Your task to perform on an android device: Open network settings Image 0: 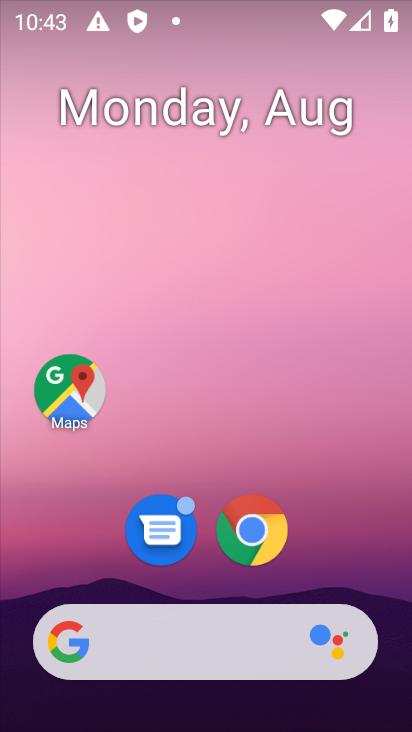
Step 0: drag from (252, 646) to (203, 227)
Your task to perform on an android device: Open network settings Image 1: 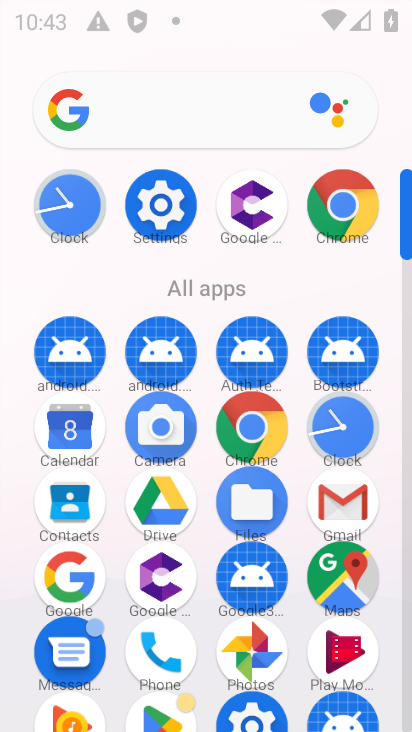
Step 1: drag from (266, 563) to (233, 278)
Your task to perform on an android device: Open network settings Image 2: 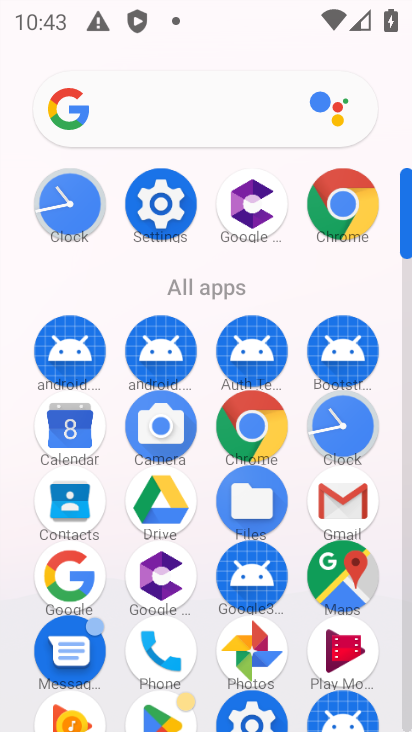
Step 2: drag from (204, 613) to (170, 294)
Your task to perform on an android device: Open network settings Image 3: 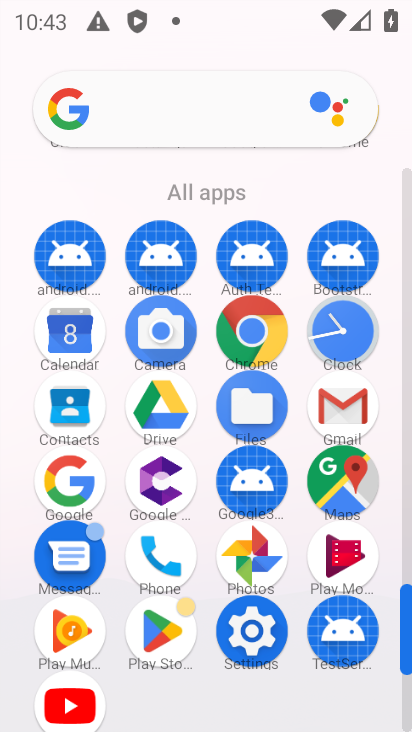
Step 3: click (255, 634)
Your task to perform on an android device: Open network settings Image 4: 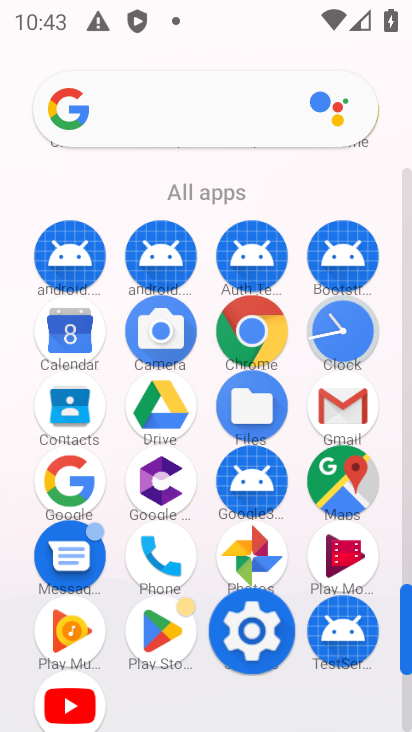
Step 4: click (255, 634)
Your task to perform on an android device: Open network settings Image 5: 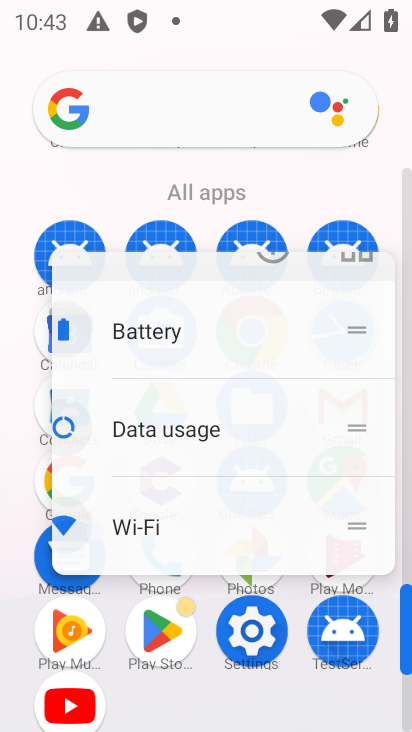
Step 5: click (242, 664)
Your task to perform on an android device: Open network settings Image 6: 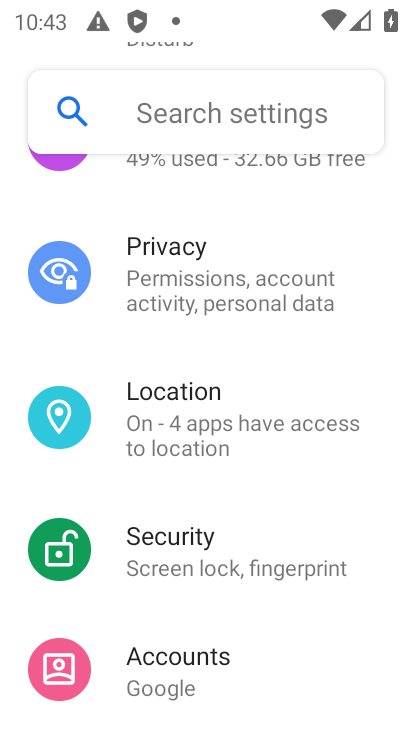
Step 6: drag from (143, 212) to (172, 505)
Your task to perform on an android device: Open network settings Image 7: 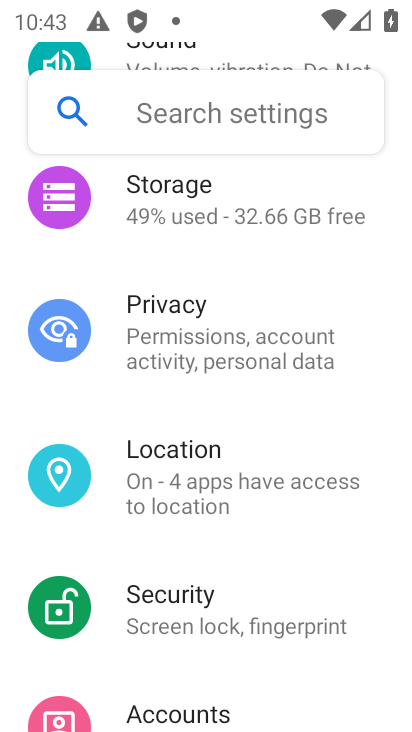
Step 7: drag from (152, 271) to (159, 454)
Your task to perform on an android device: Open network settings Image 8: 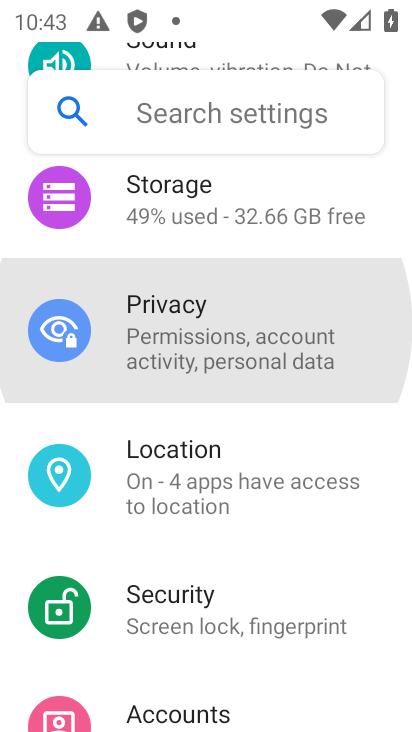
Step 8: drag from (148, 279) to (184, 498)
Your task to perform on an android device: Open network settings Image 9: 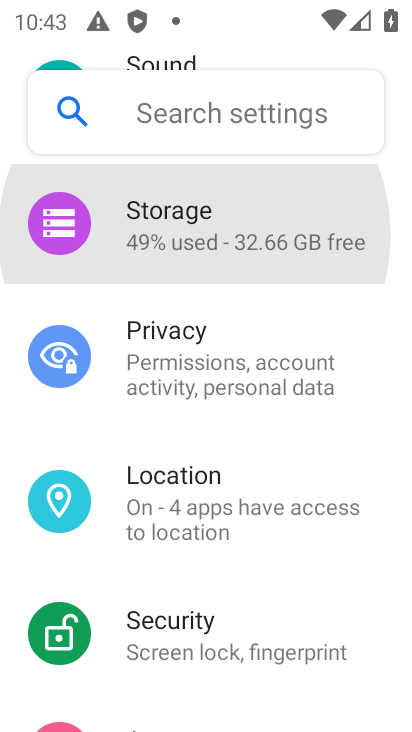
Step 9: drag from (165, 315) to (193, 517)
Your task to perform on an android device: Open network settings Image 10: 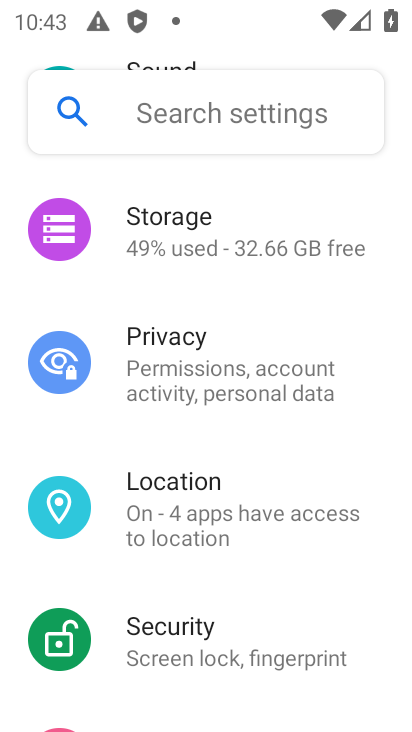
Step 10: drag from (160, 318) to (186, 537)
Your task to perform on an android device: Open network settings Image 11: 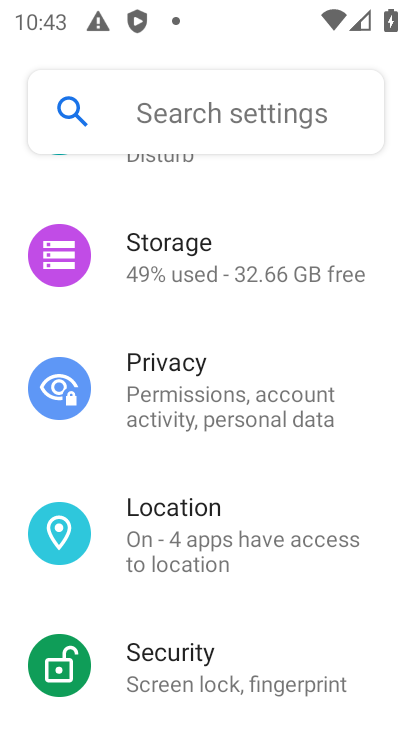
Step 11: drag from (141, 224) to (216, 555)
Your task to perform on an android device: Open network settings Image 12: 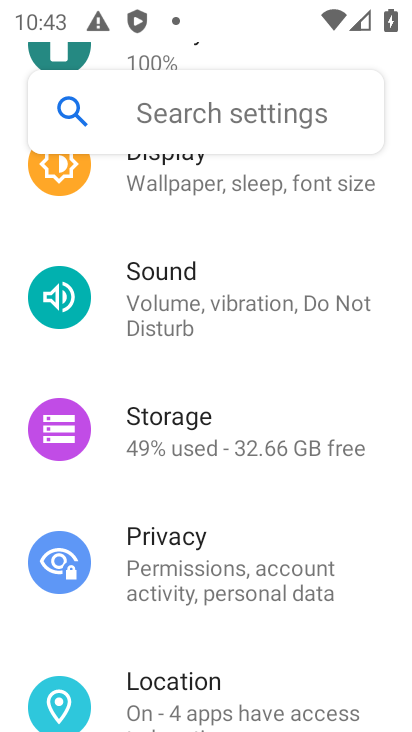
Step 12: drag from (163, 342) to (198, 567)
Your task to perform on an android device: Open network settings Image 13: 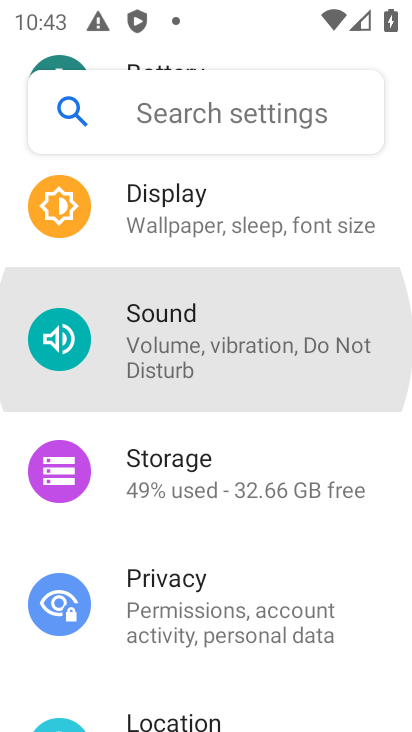
Step 13: drag from (187, 365) to (224, 591)
Your task to perform on an android device: Open network settings Image 14: 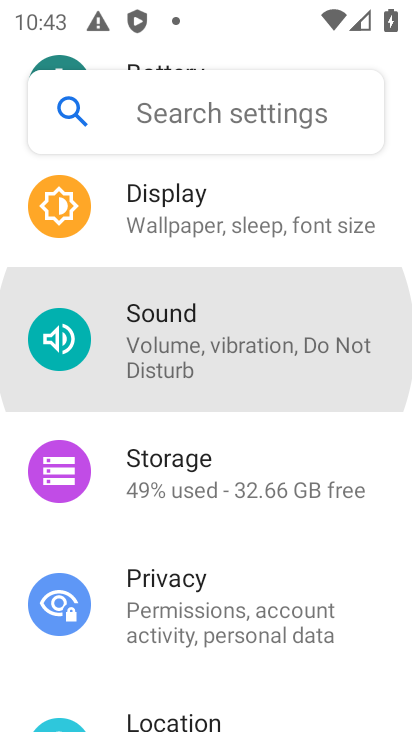
Step 14: drag from (128, 334) to (154, 554)
Your task to perform on an android device: Open network settings Image 15: 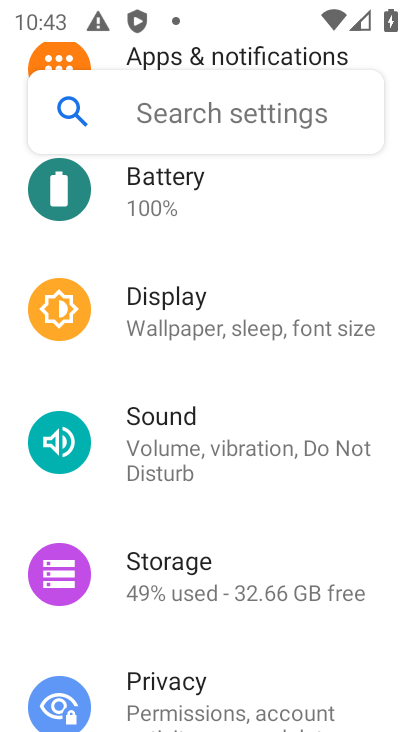
Step 15: drag from (135, 365) to (212, 593)
Your task to perform on an android device: Open network settings Image 16: 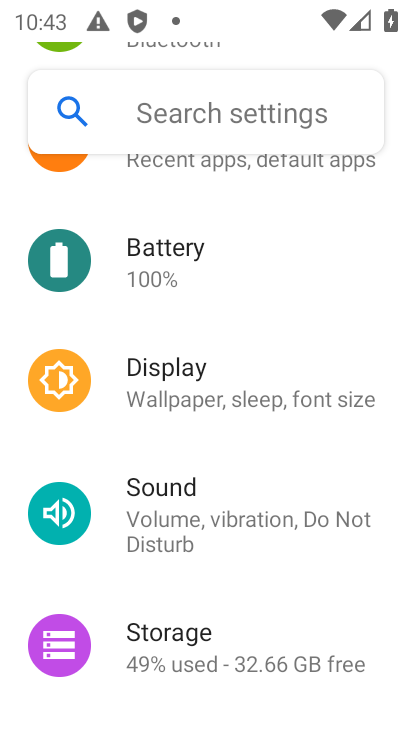
Step 16: click (196, 522)
Your task to perform on an android device: Open network settings Image 17: 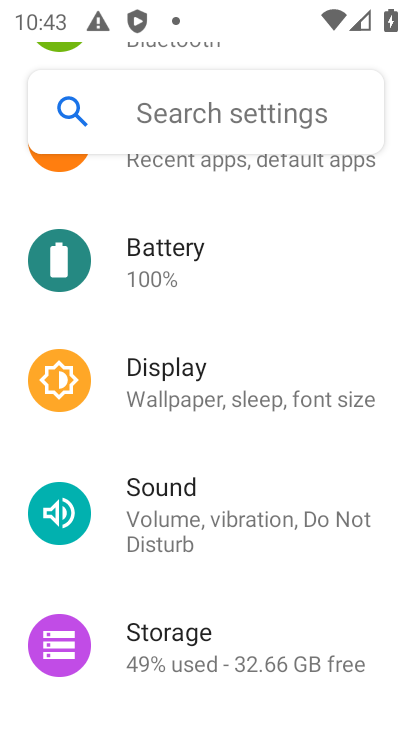
Step 17: drag from (153, 251) to (188, 478)
Your task to perform on an android device: Open network settings Image 18: 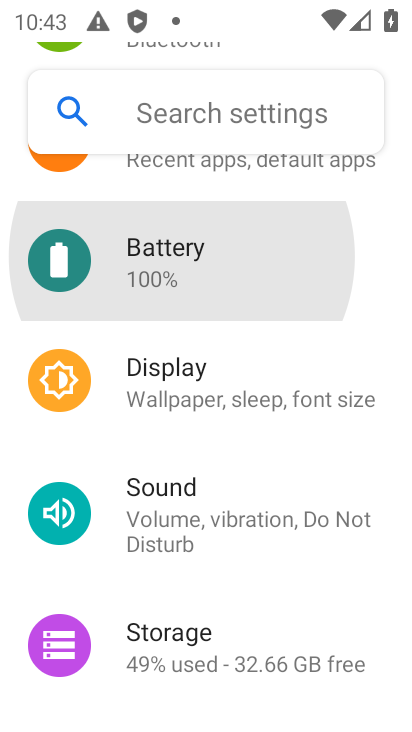
Step 18: drag from (165, 225) to (208, 479)
Your task to perform on an android device: Open network settings Image 19: 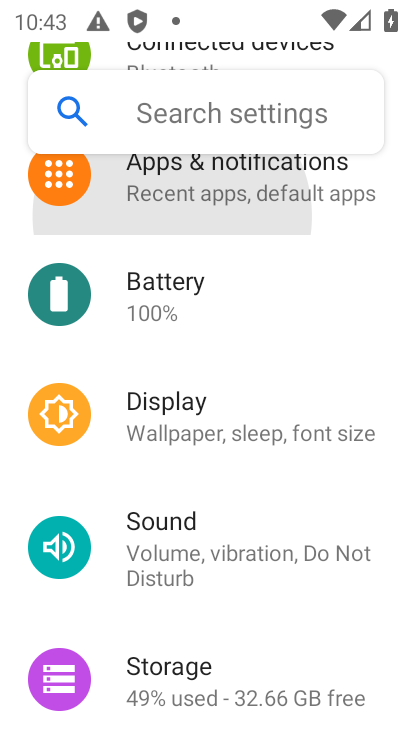
Step 19: drag from (179, 314) to (211, 479)
Your task to perform on an android device: Open network settings Image 20: 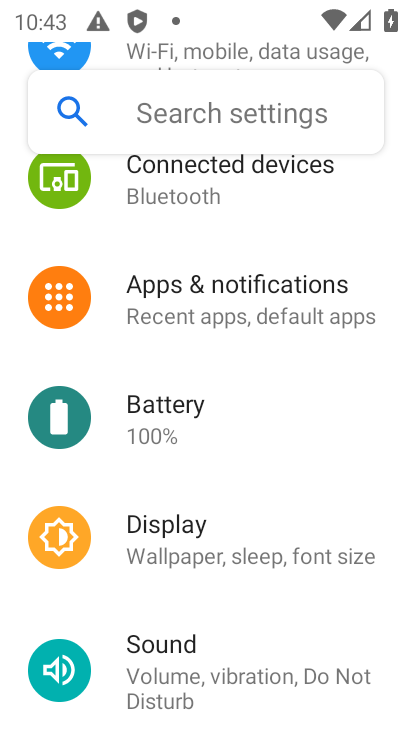
Step 20: drag from (153, 206) to (221, 532)
Your task to perform on an android device: Open network settings Image 21: 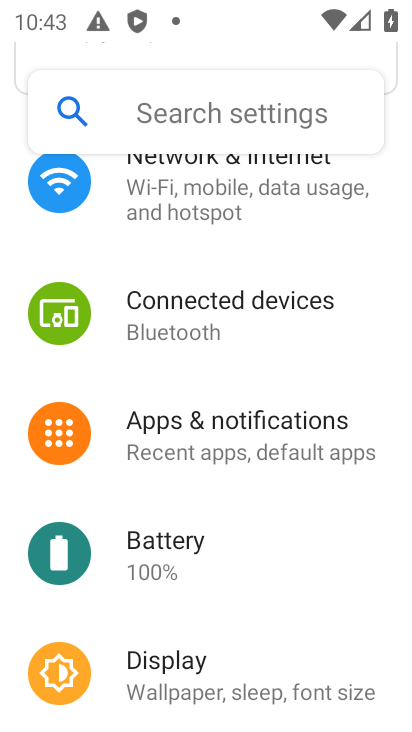
Step 21: drag from (171, 271) to (228, 571)
Your task to perform on an android device: Open network settings Image 22: 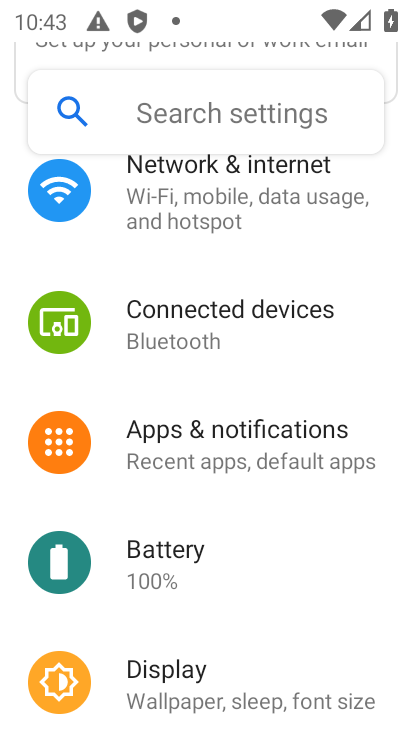
Step 22: drag from (175, 206) to (232, 513)
Your task to perform on an android device: Open network settings Image 23: 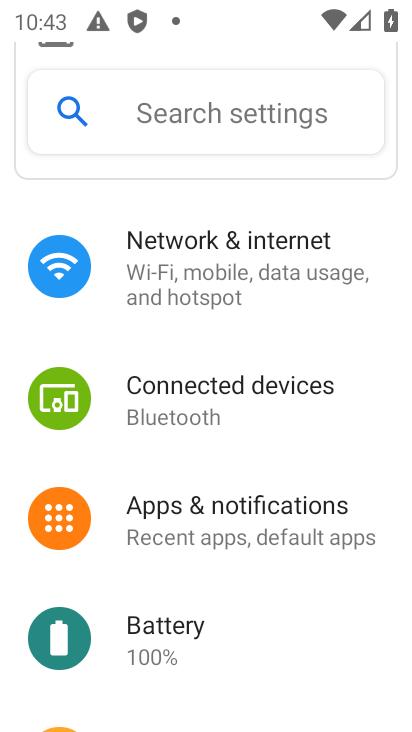
Step 23: drag from (177, 283) to (219, 541)
Your task to perform on an android device: Open network settings Image 24: 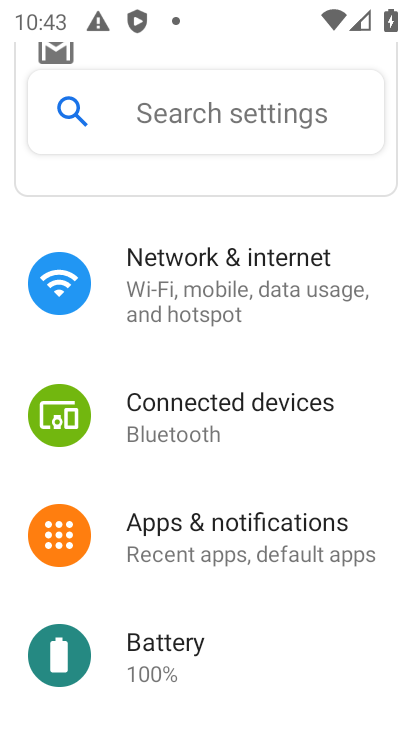
Step 24: click (199, 273)
Your task to perform on an android device: Open network settings Image 25: 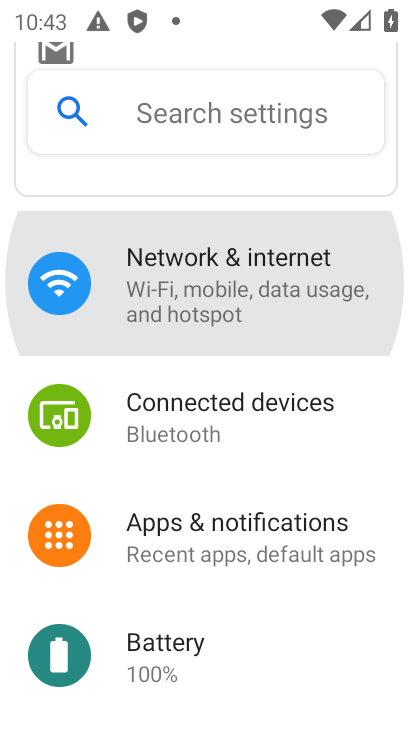
Step 25: task complete